Your task to perform on an android device: Go to display settings Image 0: 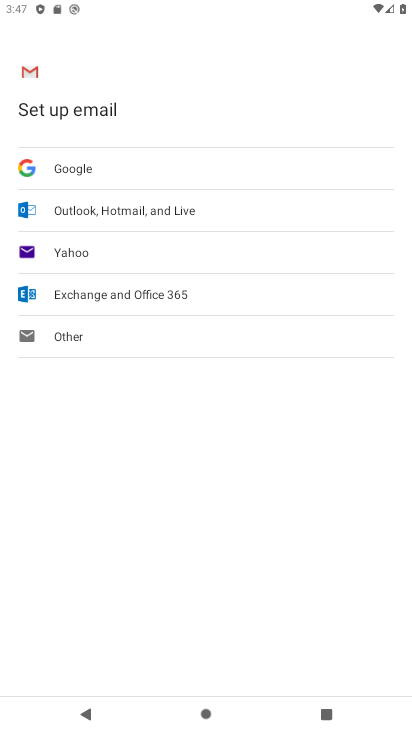
Step 0: press home button
Your task to perform on an android device: Go to display settings Image 1: 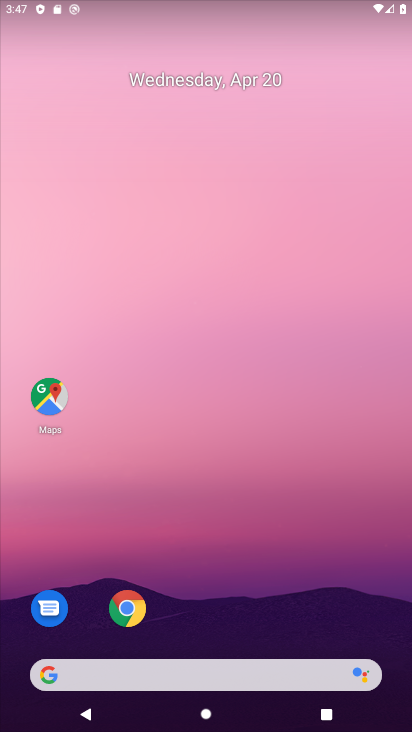
Step 1: drag from (234, 700) to (253, 0)
Your task to perform on an android device: Go to display settings Image 2: 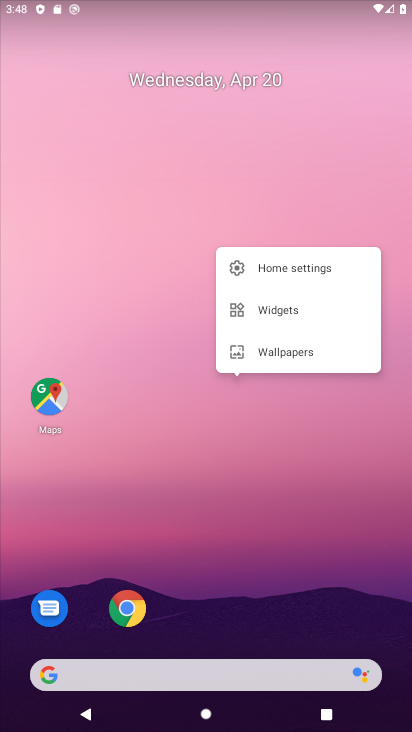
Step 2: click (230, 705)
Your task to perform on an android device: Go to display settings Image 3: 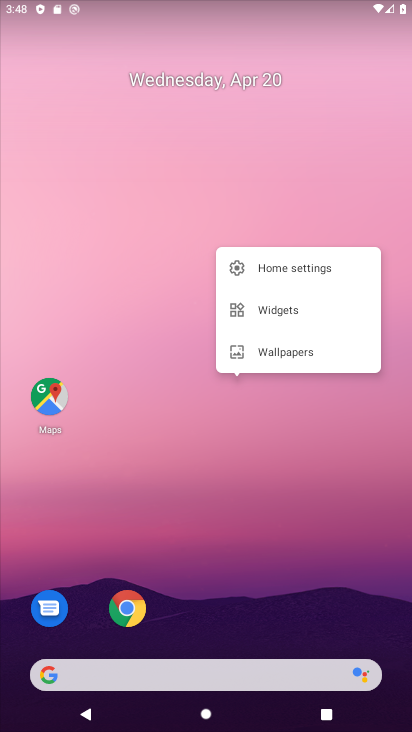
Step 3: drag from (230, 705) to (191, 69)
Your task to perform on an android device: Go to display settings Image 4: 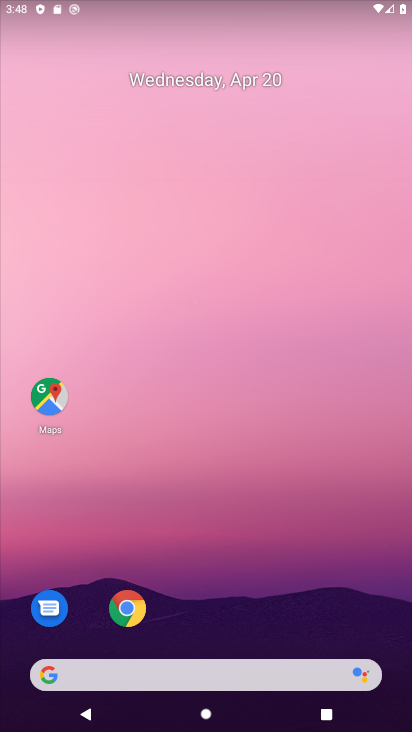
Step 4: drag from (236, 700) to (252, 195)
Your task to perform on an android device: Go to display settings Image 5: 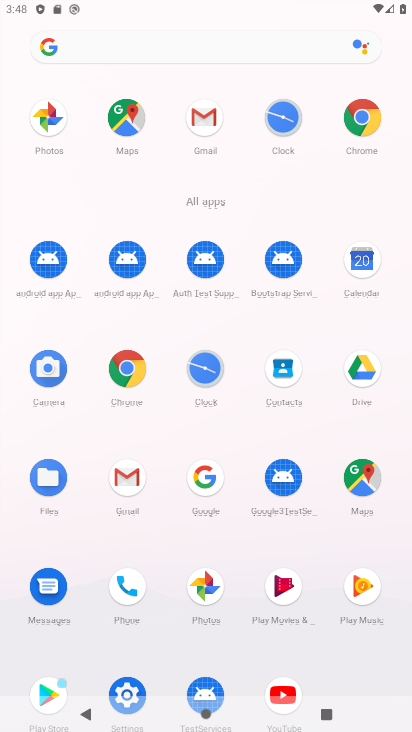
Step 5: click (126, 674)
Your task to perform on an android device: Go to display settings Image 6: 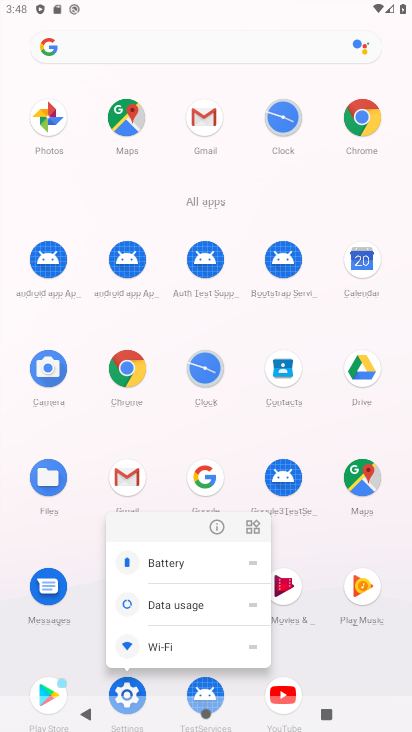
Step 6: click (136, 676)
Your task to perform on an android device: Go to display settings Image 7: 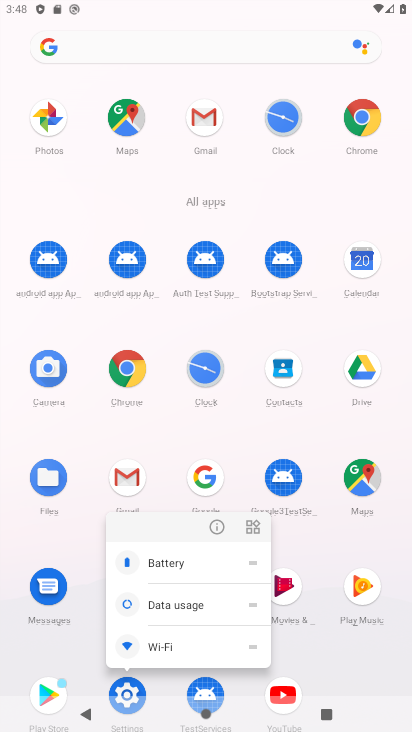
Step 7: click (126, 689)
Your task to perform on an android device: Go to display settings Image 8: 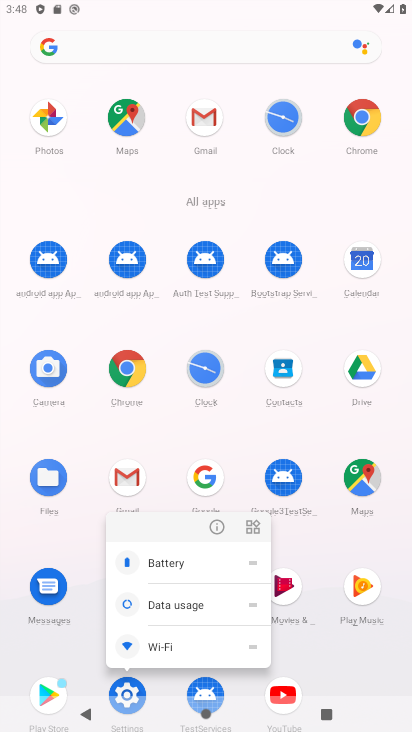
Step 8: click (126, 689)
Your task to perform on an android device: Go to display settings Image 9: 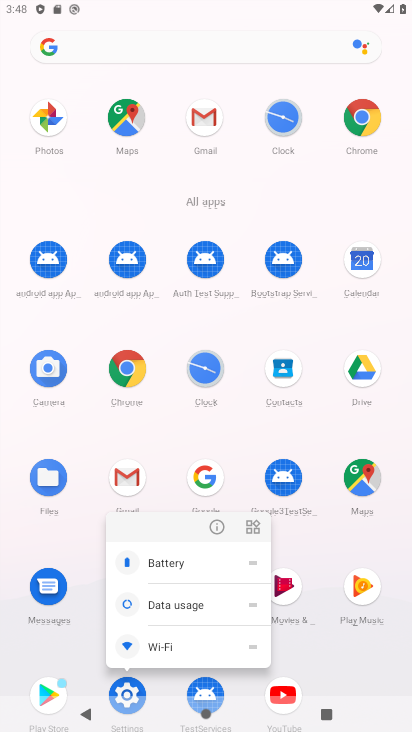
Step 9: click (126, 689)
Your task to perform on an android device: Go to display settings Image 10: 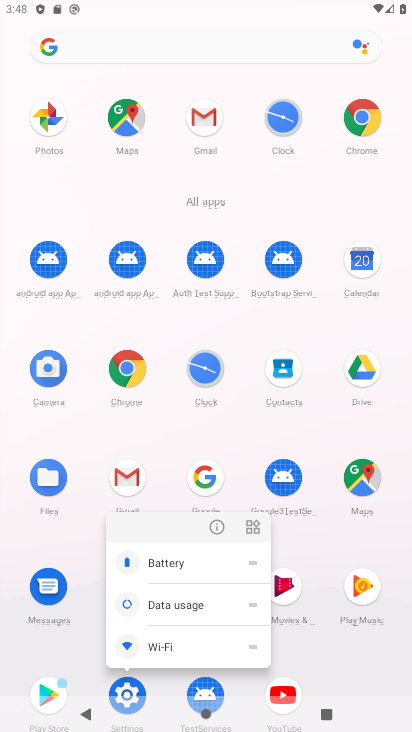
Step 10: click (126, 689)
Your task to perform on an android device: Go to display settings Image 11: 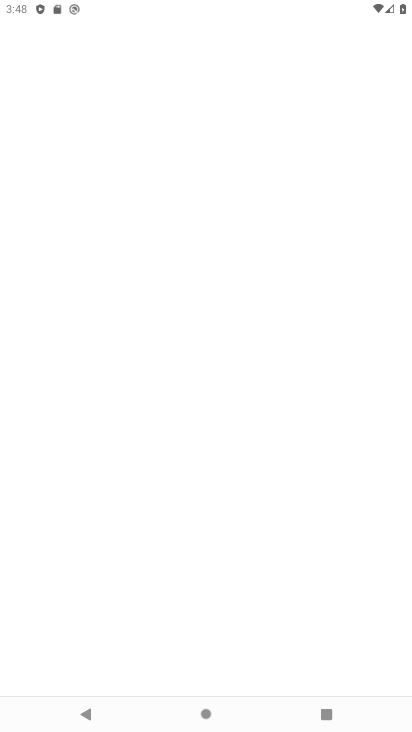
Step 11: drag from (162, 359) to (207, 260)
Your task to perform on an android device: Go to display settings Image 12: 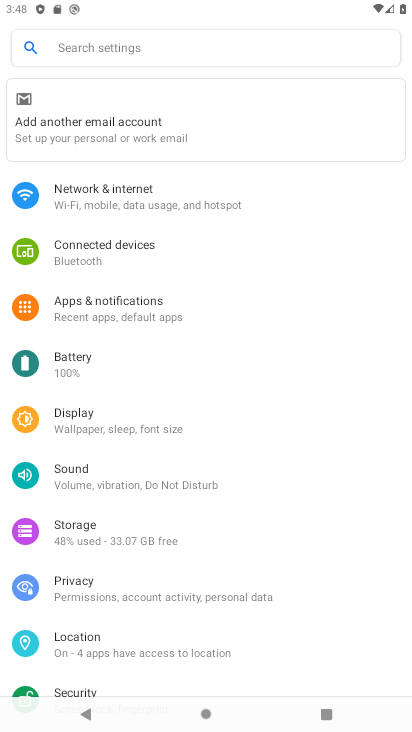
Step 12: click (90, 411)
Your task to perform on an android device: Go to display settings Image 13: 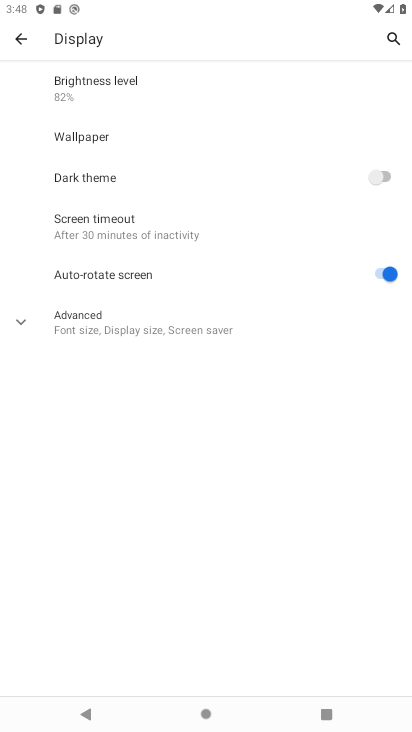
Step 13: click (38, 321)
Your task to perform on an android device: Go to display settings Image 14: 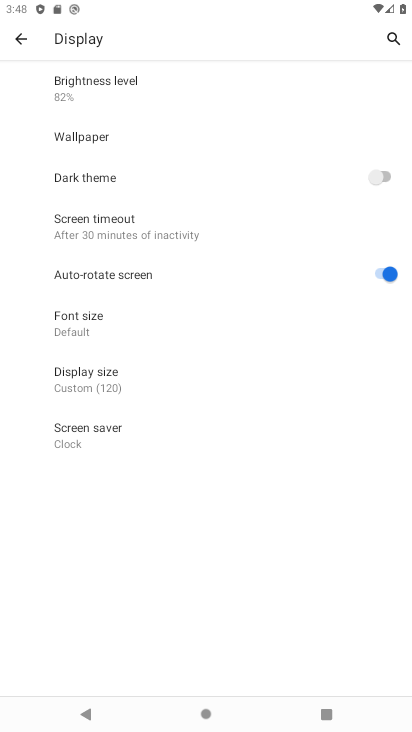
Step 14: task complete